Your task to perform on an android device: Search for the best 4k TVs Image 0: 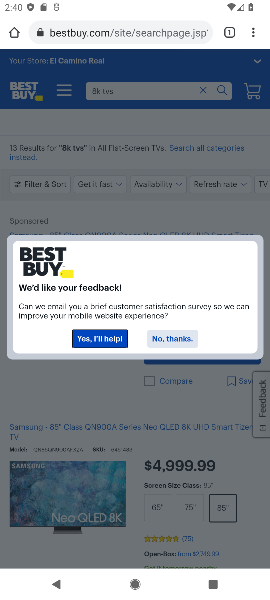
Step 0: press home button
Your task to perform on an android device: Search for the best 4k TVs Image 1: 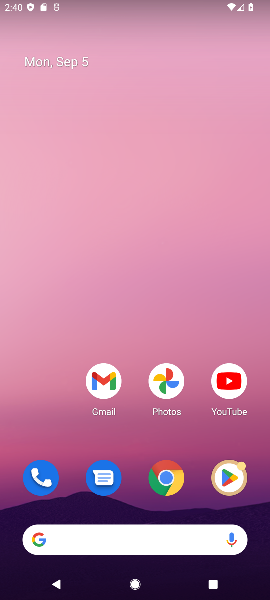
Step 1: click (173, 482)
Your task to perform on an android device: Search for the best 4k TVs Image 2: 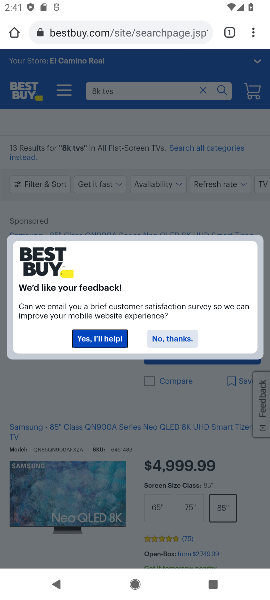
Step 2: click (160, 35)
Your task to perform on an android device: Search for the best 4k TVs Image 3: 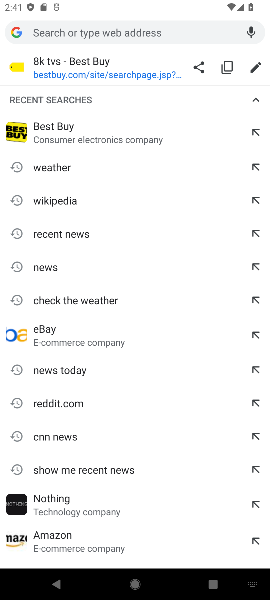
Step 3: type "best 4k"
Your task to perform on an android device: Search for the best 4k TVs Image 4: 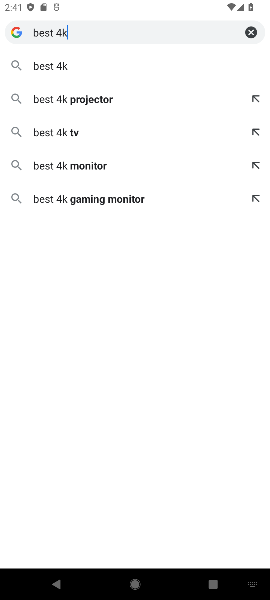
Step 4: type " TVs"
Your task to perform on an android device: Search for the best 4k TVs Image 5: 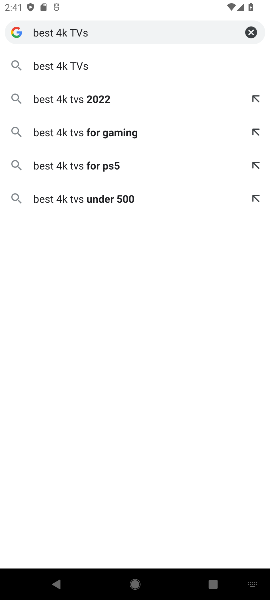
Step 5: click (106, 66)
Your task to perform on an android device: Search for the best 4k TVs Image 6: 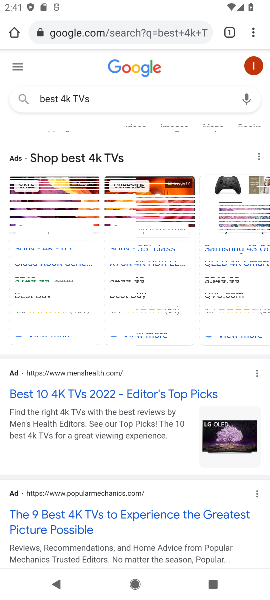
Step 6: task complete